Your task to perform on an android device: toggle location history Image 0: 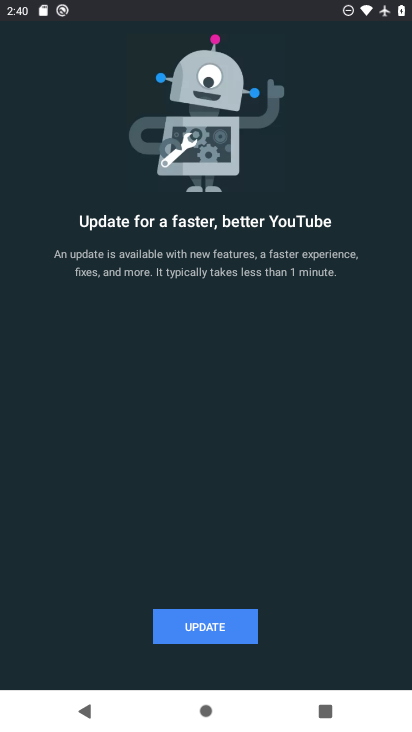
Step 0: press home button
Your task to perform on an android device: toggle location history Image 1: 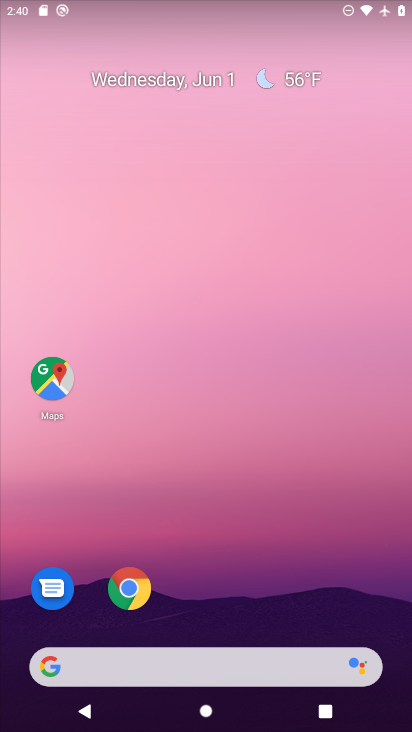
Step 1: drag from (300, 577) to (219, 8)
Your task to perform on an android device: toggle location history Image 2: 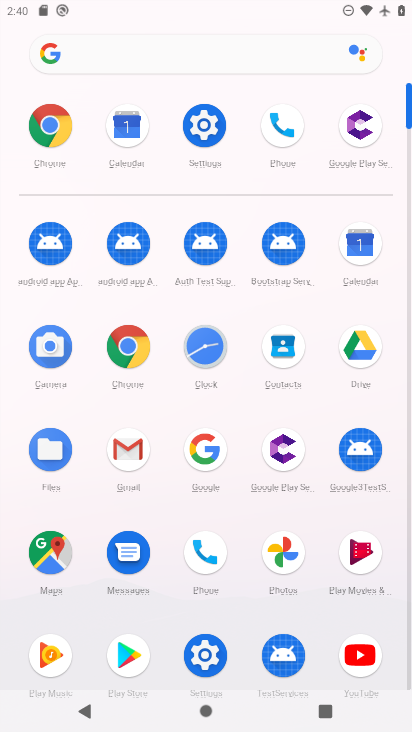
Step 2: click (205, 93)
Your task to perform on an android device: toggle location history Image 3: 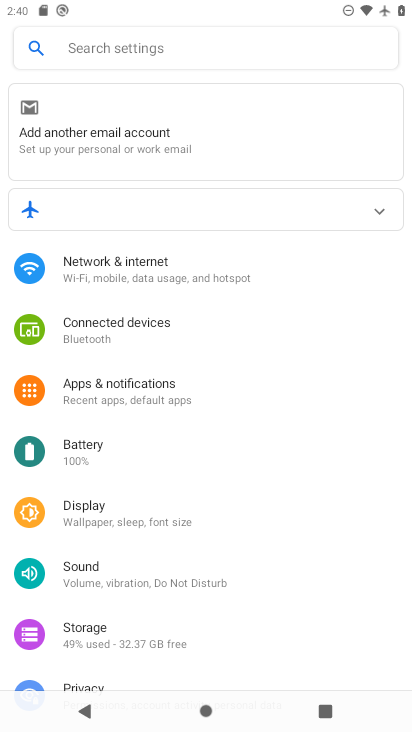
Step 3: drag from (171, 655) to (194, 239)
Your task to perform on an android device: toggle location history Image 4: 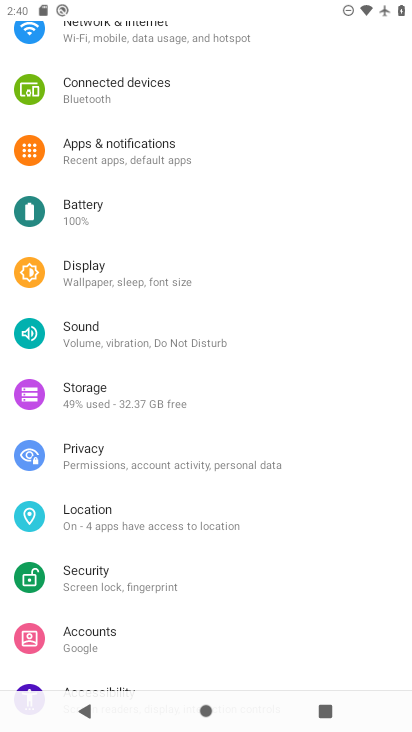
Step 4: click (152, 519)
Your task to perform on an android device: toggle location history Image 5: 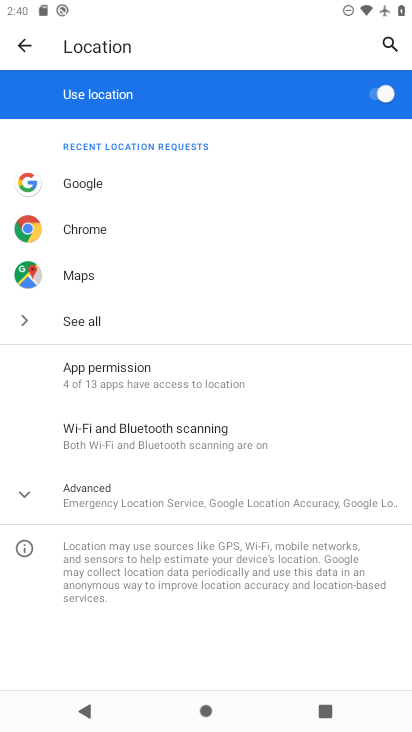
Step 5: drag from (189, 467) to (236, 120)
Your task to perform on an android device: toggle location history Image 6: 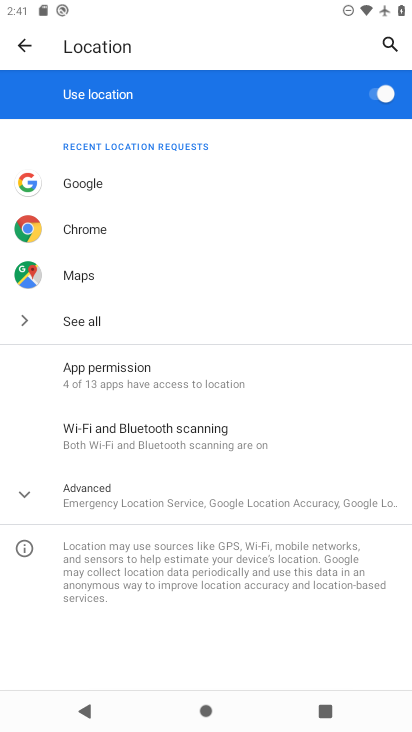
Step 6: click (209, 483)
Your task to perform on an android device: toggle location history Image 7: 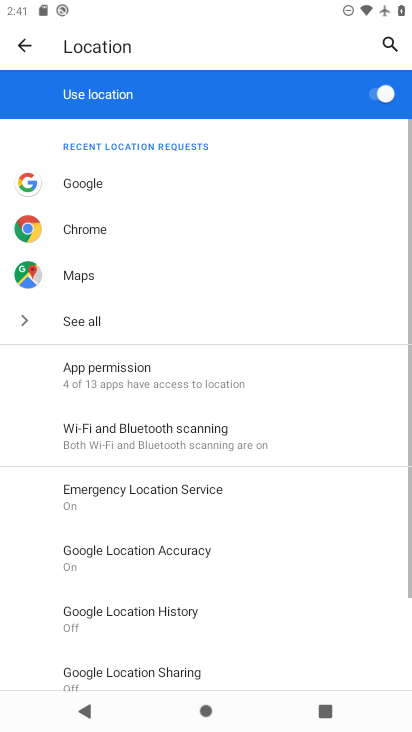
Step 7: drag from (207, 557) to (261, 140)
Your task to perform on an android device: toggle location history Image 8: 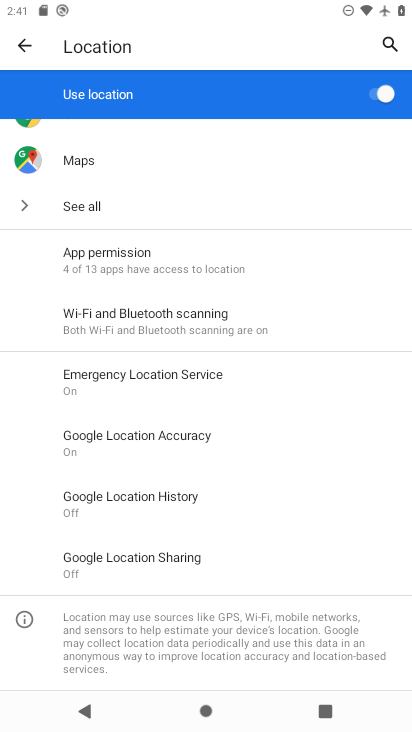
Step 8: click (191, 505)
Your task to perform on an android device: toggle location history Image 9: 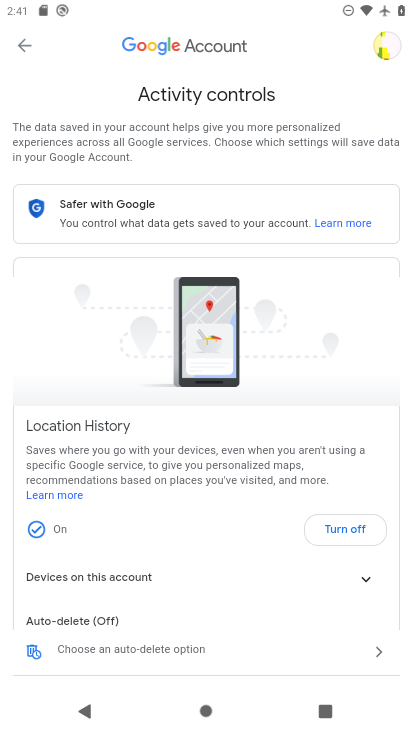
Step 9: click (350, 525)
Your task to perform on an android device: toggle location history Image 10: 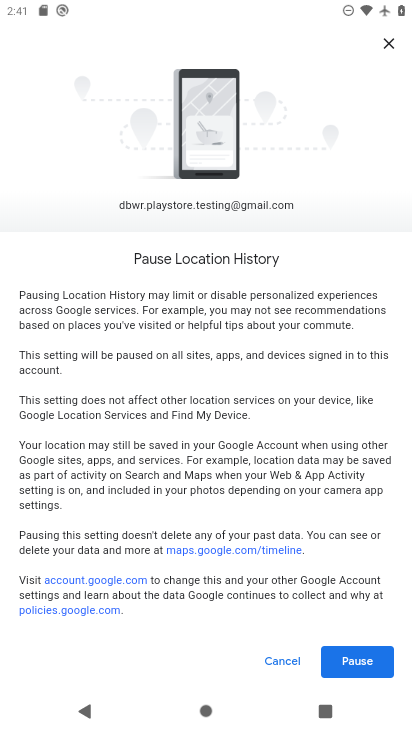
Step 10: click (365, 652)
Your task to perform on an android device: toggle location history Image 11: 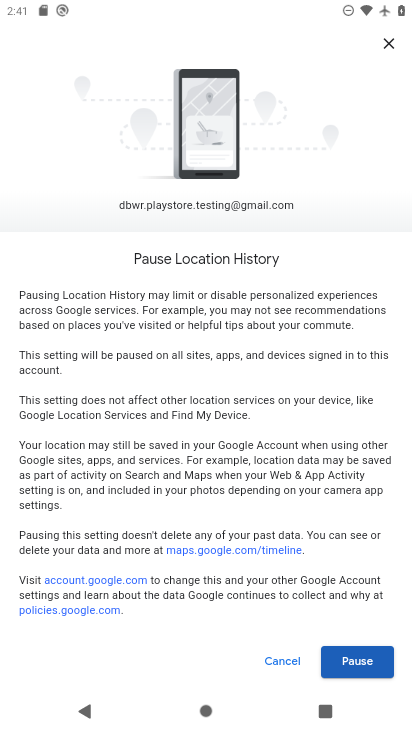
Step 11: click (388, 667)
Your task to perform on an android device: toggle location history Image 12: 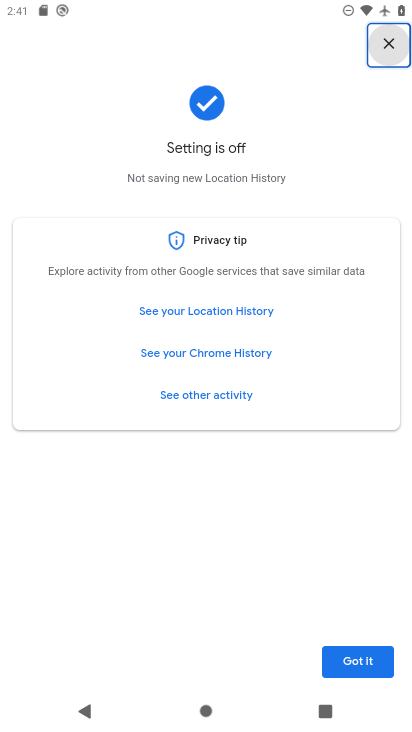
Step 12: click (369, 660)
Your task to perform on an android device: toggle location history Image 13: 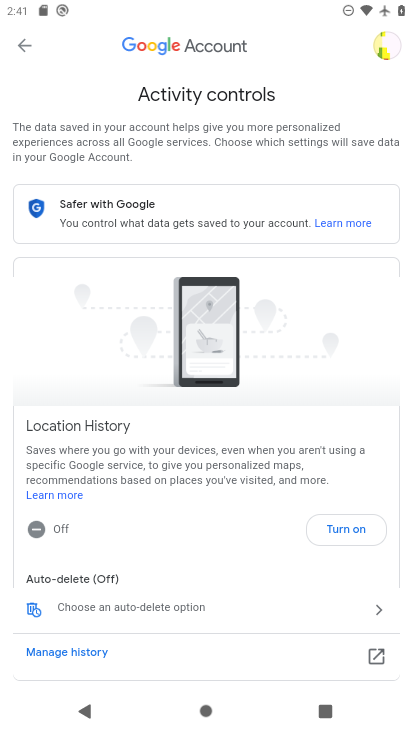
Step 13: task complete